Your task to perform on an android device: Show me the alarms in the clock app Image 0: 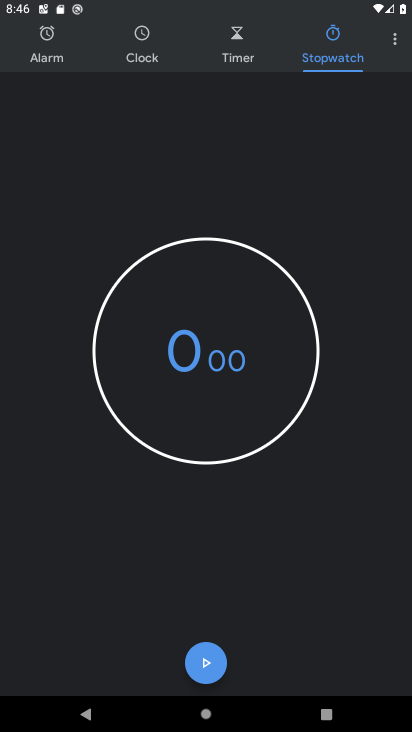
Step 0: click (47, 43)
Your task to perform on an android device: Show me the alarms in the clock app Image 1: 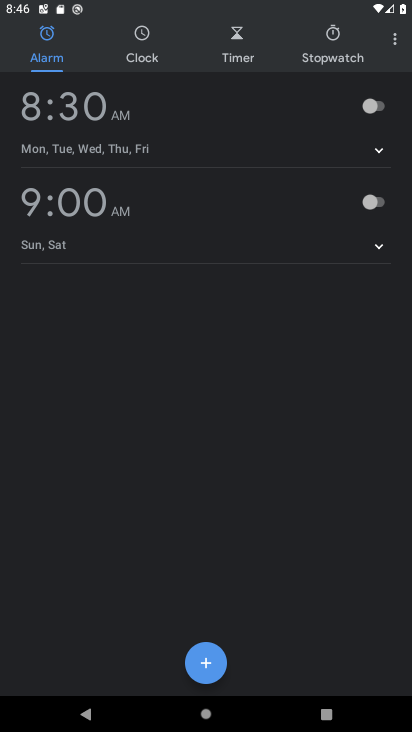
Step 1: task complete